Your task to perform on an android device: Search for "macbook air" on bestbuy.com, select the first entry, and add it to the cart. Image 0: 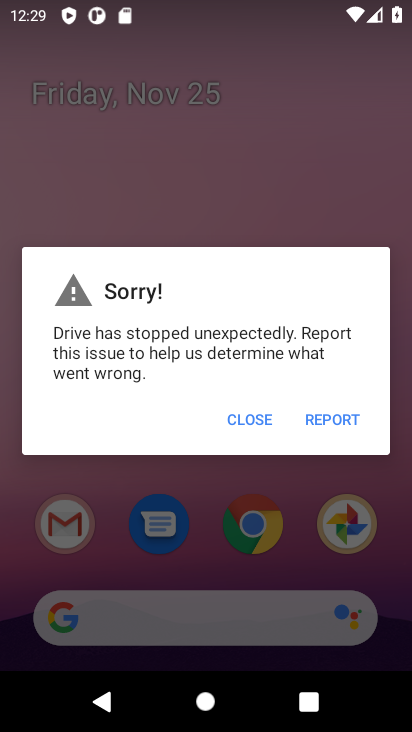
Step 0: press home button
Your task to perform on an android device: Search for "macbook air" on bestbuy.com, select the first entry, and add it to the cart. Image 1: 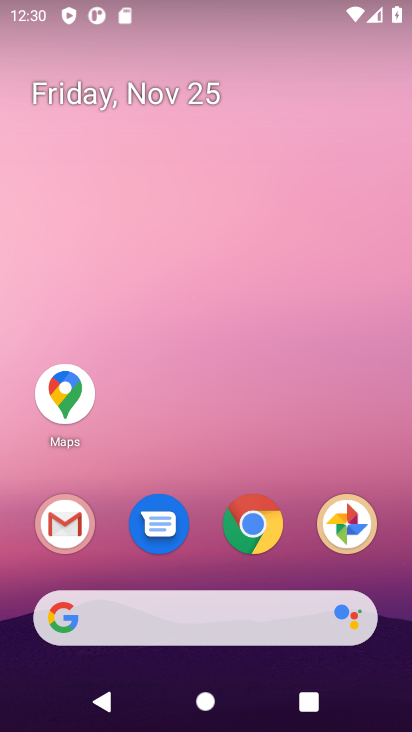
Step 1: click (262, 529)
Your task to perform on an android device: Search for "macbook air" on bestbuy.com, select the first entry, and add it to the cart. Image 2: 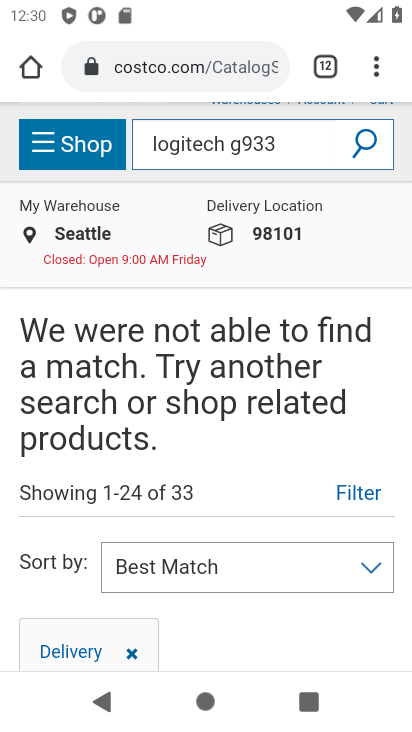
Step 2: click (172, 69)
Your task to perform on an android device: Search for "macbook air" on bestbuy.com, select the first entry, and add it to the cart. Image 3: 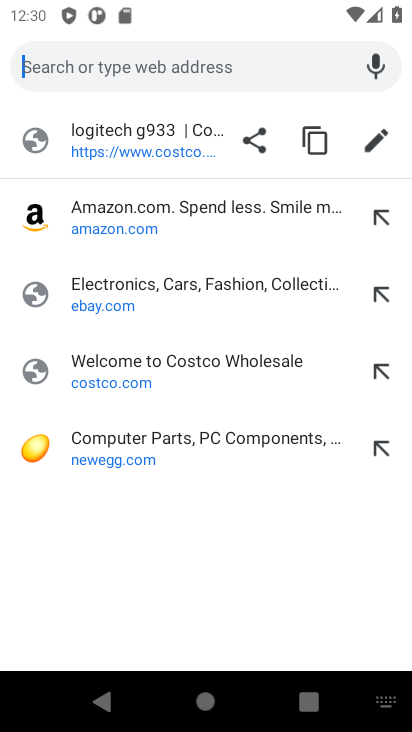
Step 3: type "bestbuy.com"
Your task to perform on an android device: Search for "macbook air" on bestbuy.com, select the first entry, and add it to the cart. Image 4: 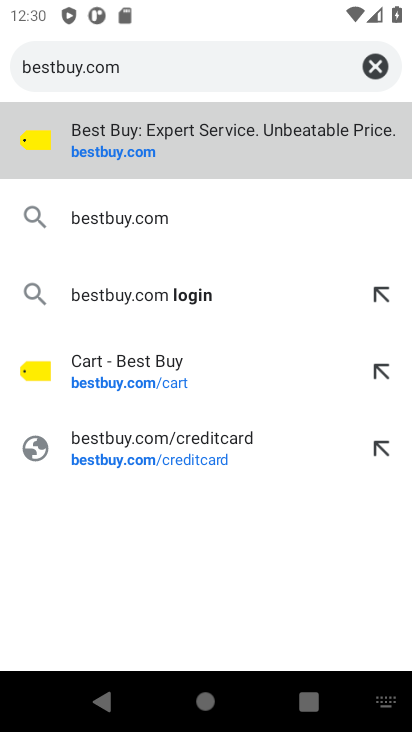
Step 4: click (111, 155)
Your task to perform on an android device: Search for "macbook air" on bestbuy.com, select the first entry, and add it to the cart. Image 5: 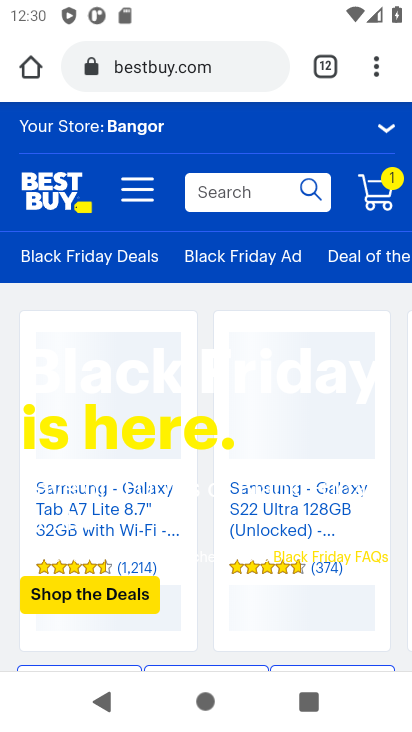
Step 5: click (238, 193)
Your task to perform on an android device: Search for "macbook air" on bestbuy.com, select the first entry, and add it to the cart. Image 6: 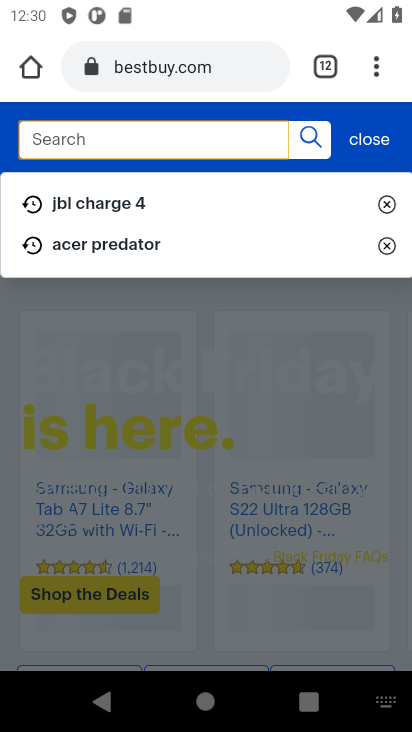
Step 6: type "macbook air"
Your task to perform on an android device: Search for "macbook air" on bestbuy.com, select the first entry, and add it to the cart. Image 7: 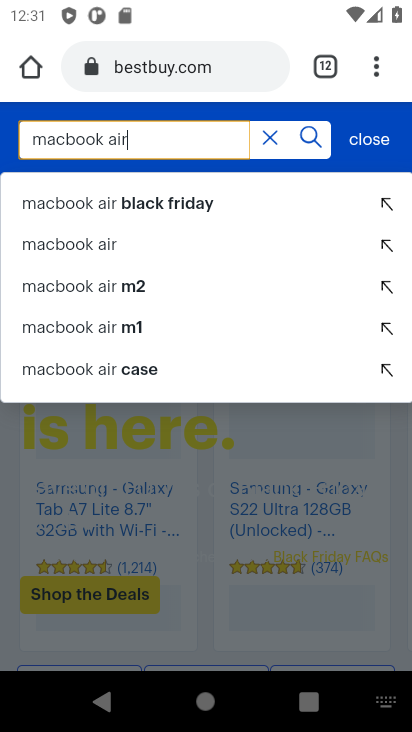
Step 7: click (83, 251)
Your task to perform on an android device: Search for "macbook air" on bestbuy.com, select the first entry, and add it to the cart. Image 8: 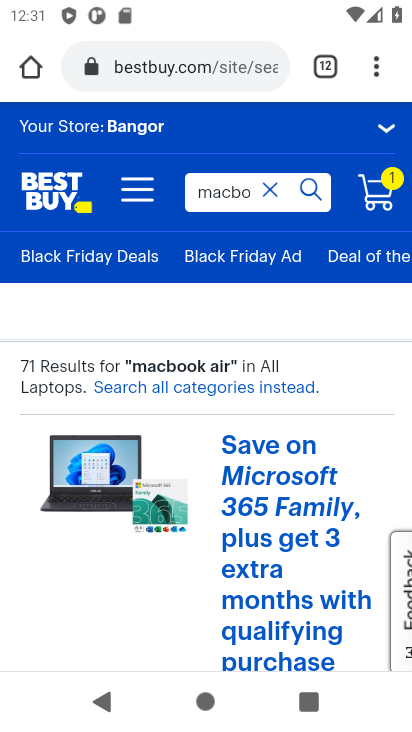
Step 8: drag from (191, 501) to (194, 274)
Your task to perform on an android device: Search for "macbook air" on bestbuy.com, select the first entry, and add it to the cart. Image 9: 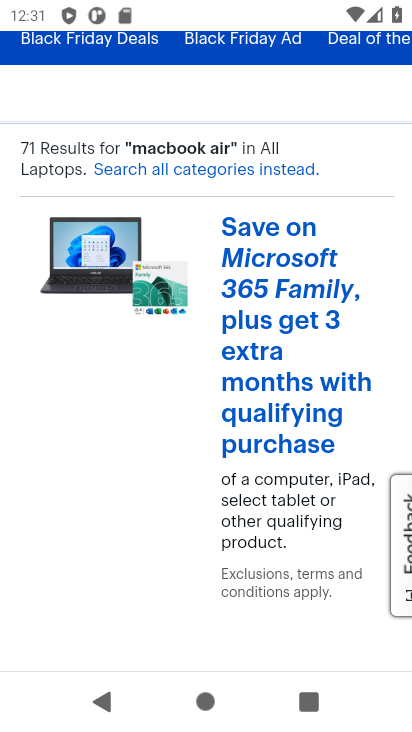
Step 9: drag from (166, 466) to (158, 250)
Your task to perform on an android device: Search for "macbook air" on bestbuy.com, select the first entry, and add it to the cart. Image 10: 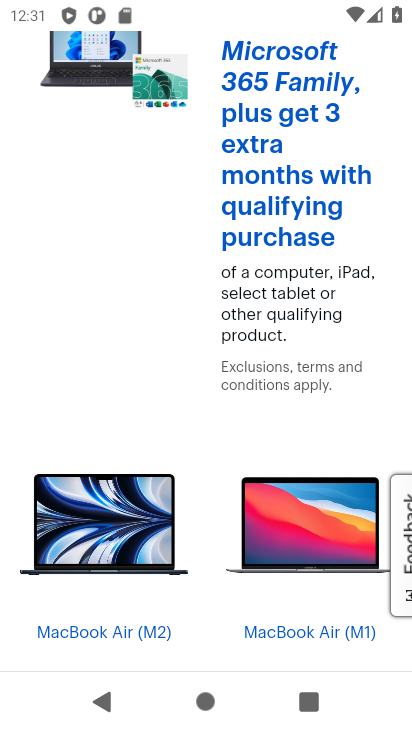
Step 10: drag from (153, 508) to (176, 232)
Your task to perform on an android device: Search for "macbook air" on bestbuy.com, select the first entry, and add it to the cart. Image 11: 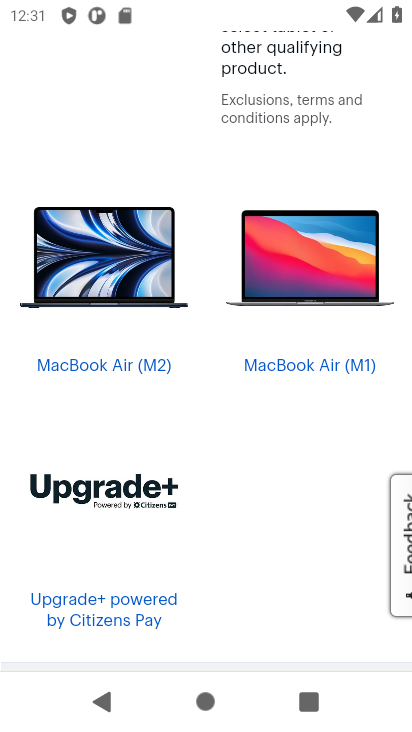
Step 11: drag from (157, 536) to (193, 204)
Your task to perform on an android device: Search for "macbook air" on bestbuy.com, select the first entry, and add it to the cart. Image 12: 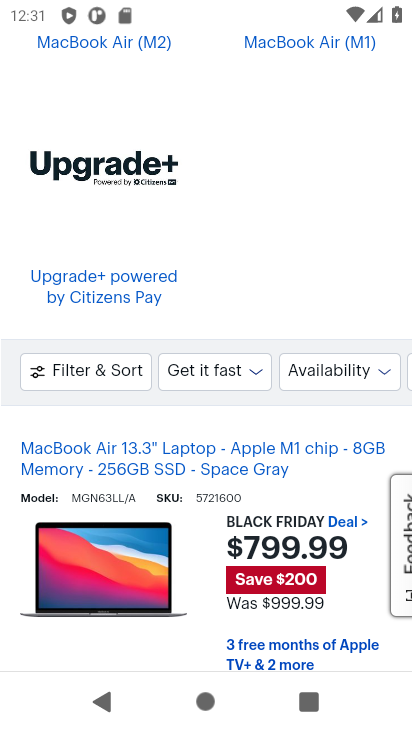
Step 12: drag from (158, 545) to (181, 223)
Your task to perform on an android device: Search for "macbook air" on bestbuy.com, select the first entry, and add it to the cart. Image 13: 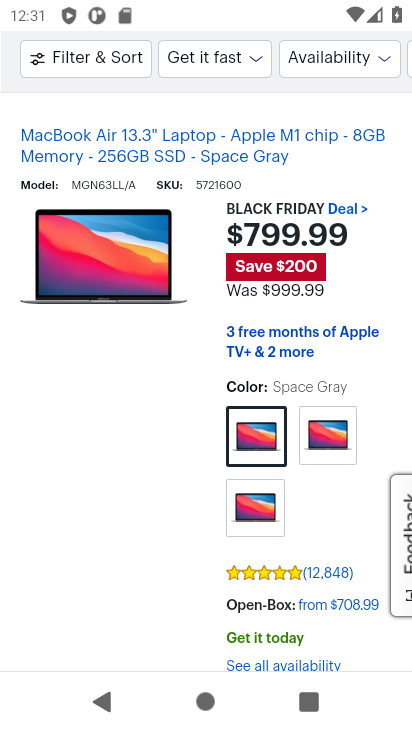
Step 13: drag from (145, 384) to (135, 654)
Your task to perform on an android device: Search for "macbook air" on bestbuy.com, select the first entry, and add it to the cart. Image 14: 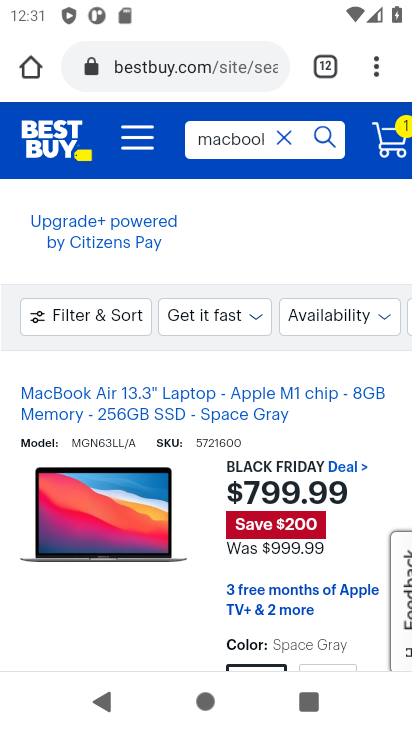
Step 14: drag from (134, 366) to (186, 247)
Your task to perform on an android device: Search for "macbook air" on bestbuy.com, select the first entry, and add it to the cart. Image 15: 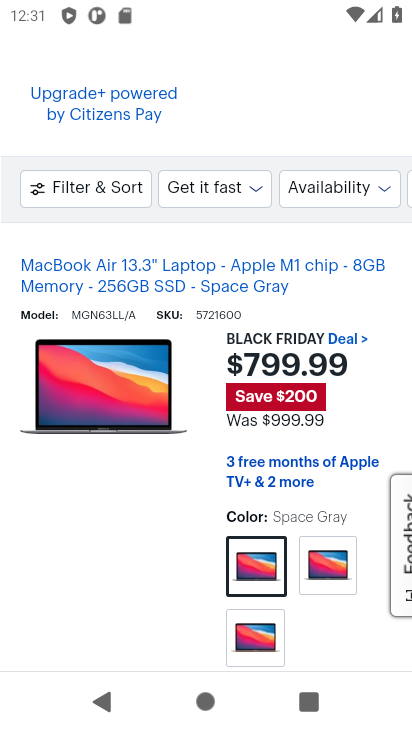
Step 15: click (99, 395)
Your task to perform on an android device: Search for "macbook air" on bestbuy.com, select the first entry, and add it to the cart. Image 16: 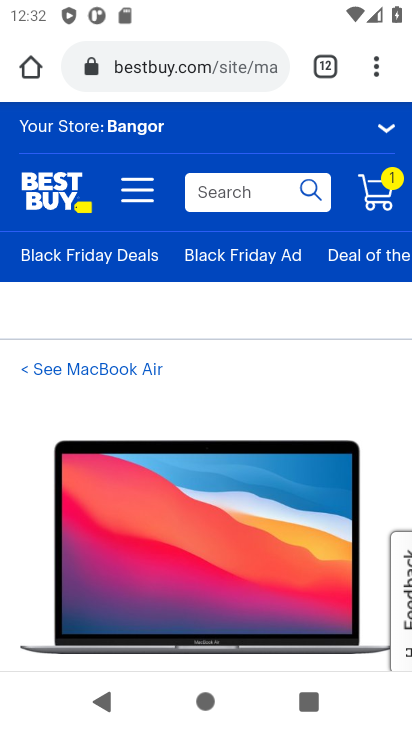
Step 16: drag from (199, 592) to (226, 211)
Your task to perform on an android device: Search for "macbook air" on bestbuy.com, select the first entry, and add it to the cart. Image 17: 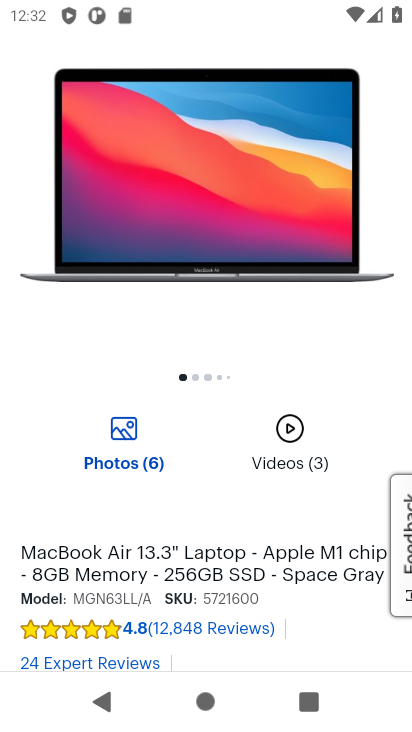
Step 17: drag from (191, 492) to (204, 213)
Your task to perform on an android device: Search for "macbook air" on bestbuy.com, select the first entry, and add it to the cart. Image 18: 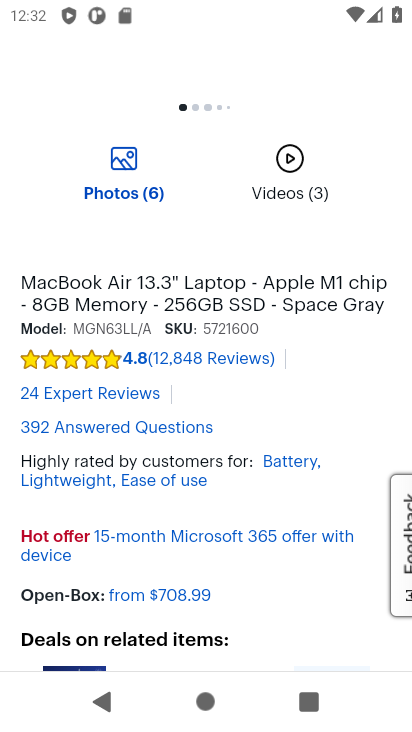
Step 18: drag from (183, 433) to (182, 236)
Your task to perform on an android device: Search for "macbook air" on bestbuy.com, select the first entry, and add it to the cart. Image 19: 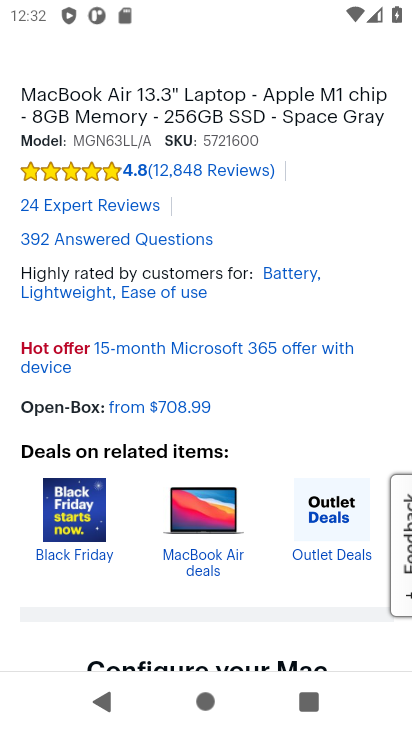
Step 19: drag from (159, 458) to (181, 170)
Your task to perform on an android device: Search for "macbook air" on bestbuy.com, select the first entry, and add it to the cart. Image 20: 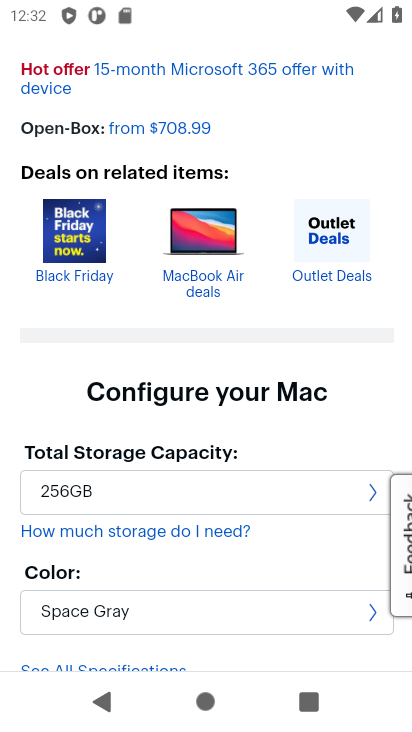
Step 20: drag from (158, 490) to (193, 165)
Your task to perform on an android device: Search for "macbook air" on bestbuy.com, select the first entry, and add it to the cart. Image 21: 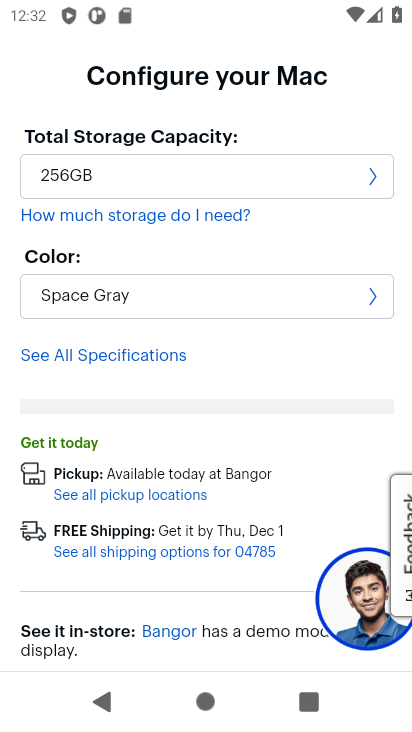
Step 21: drag from (171, 487) to (174, 190)
Your task to perform on an android device: Search for "macbook air" on bestbuy.com, select the first entry, and add it to the cart. Image 22: 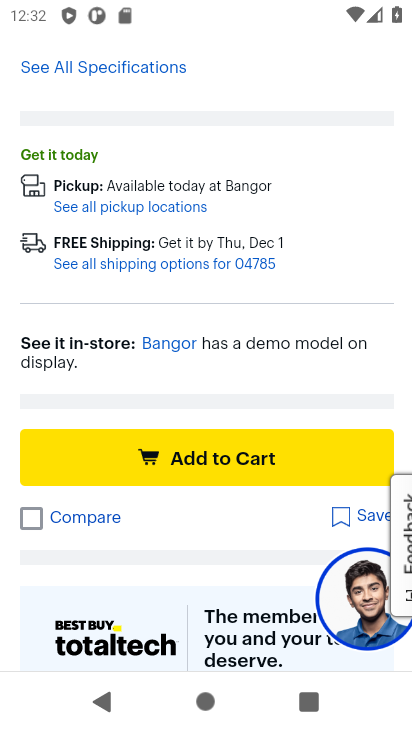
Step 22: click (195, 454)
Your task to perform on an android device: Search for "macbook air" on bestbuy.com, select the first entry, and add it to the cart. Image 23: 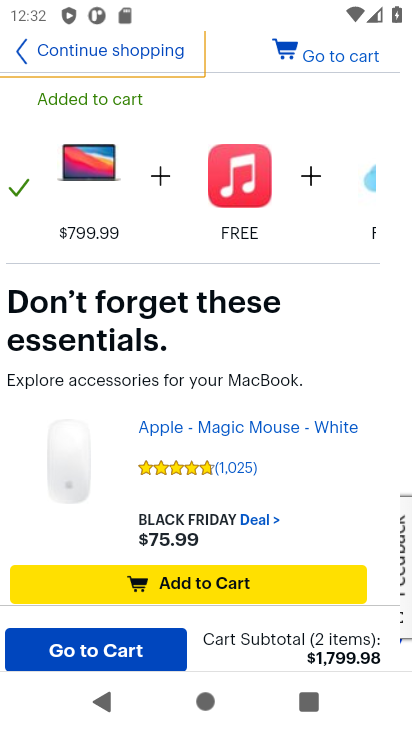
Step 23: task complete